Your task to perform on an android device: turn off translation in the chrome app Image 0: 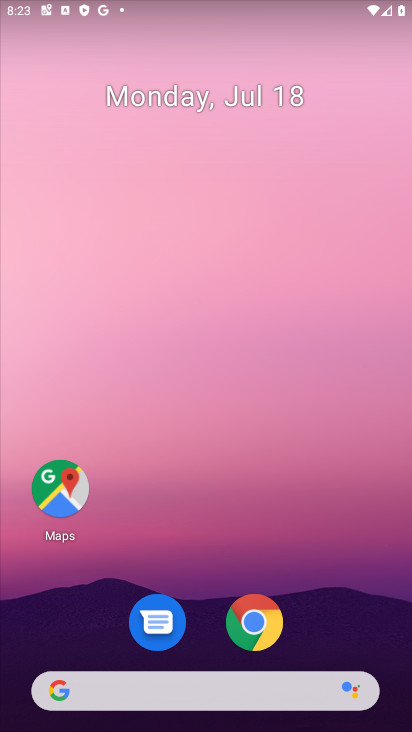
Step 0: drag from (188, 662) to (191, 281)
Your task to perform on an android device: turn off translation in the chrome app Image 1: 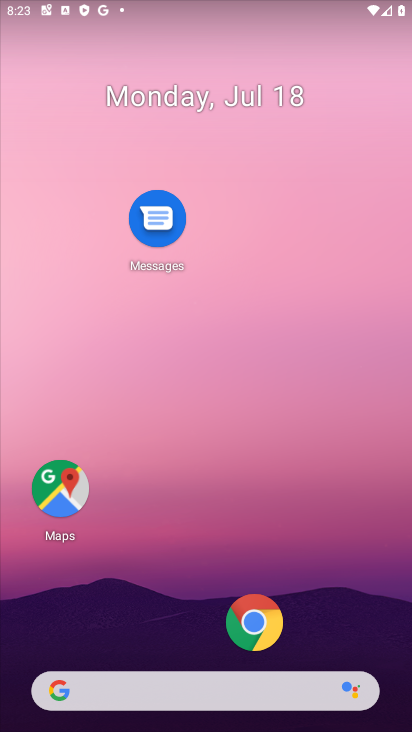
Step 1: drag from (332, 618) to (338, 260)
Your task to perform on an android device: turn off translation in the chrome app Image 2: 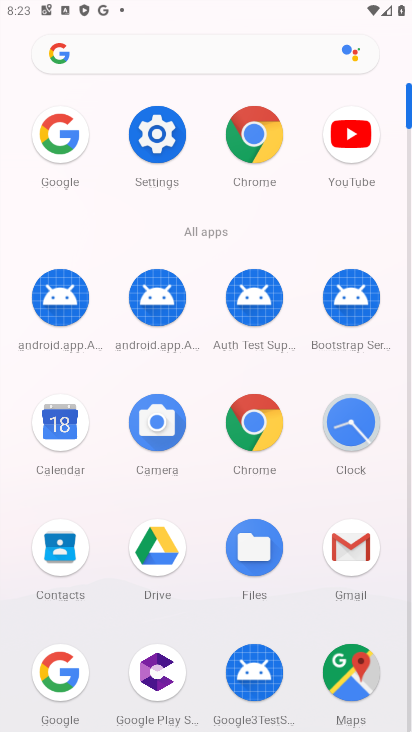
Step 2: click (264, 444)
Your task to perform on an android device: turn off translation in the chrome app Image 3: 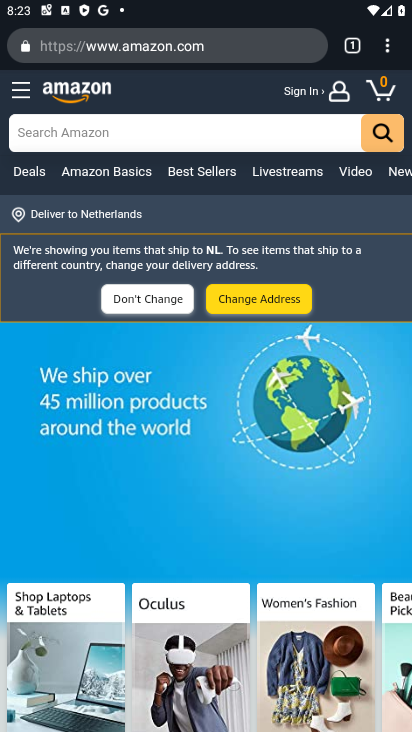
Step 3: click (390, 49)
Your task to perform on an android device: turn off translation in the chrome app Image 4: 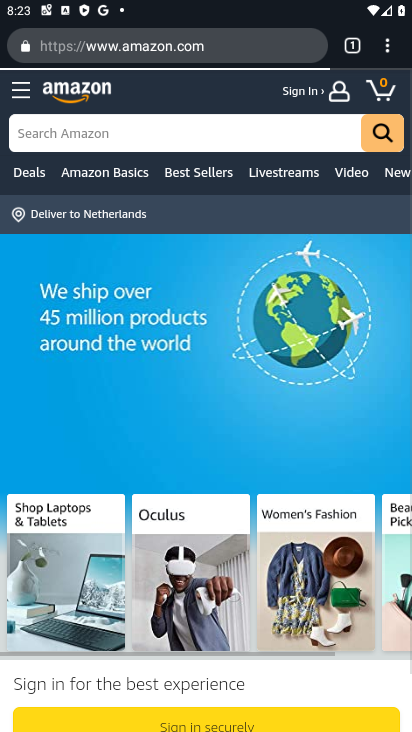
Step 4: click (389, 56)
Your task to perform on an android device: turn off translation in the chrome app Image 5: 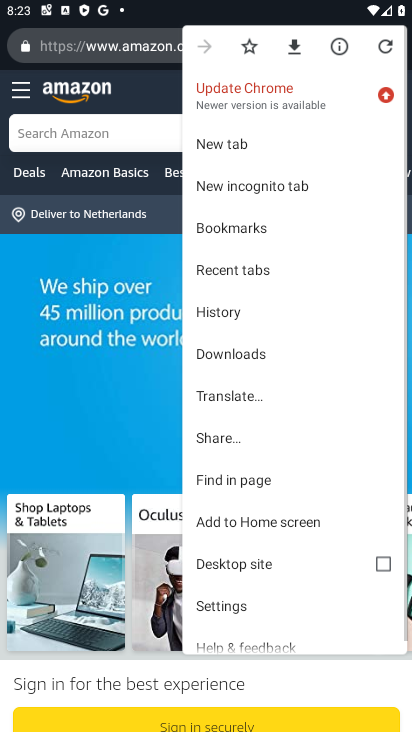
Step 5: click (262, 405)
Your task to perform on an android device: turn off translation in the chrome app Image 6: 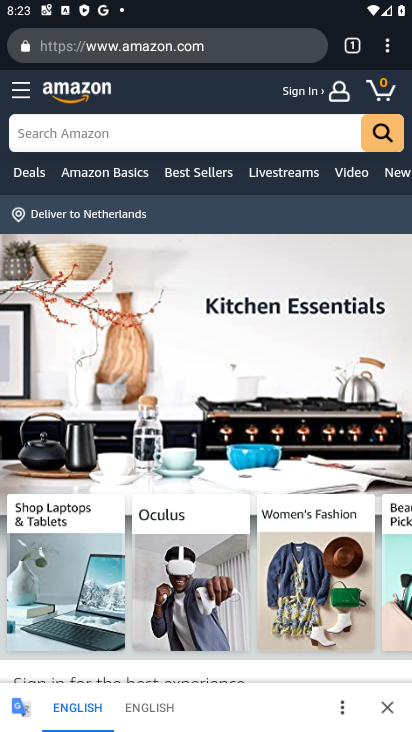
Step 6: click (340, 710)
Your task to perform on an android device: turn off translation in the chrome app Image 7: 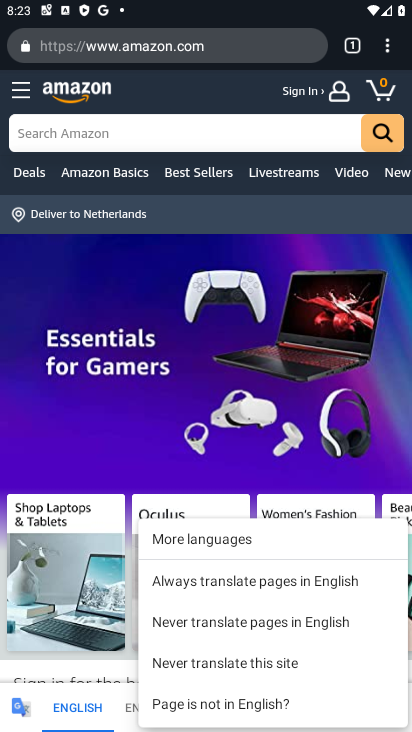
Step 7: click (278, 667)
Your task to perform on an android device: turn off translation in the chrome app Image 8: 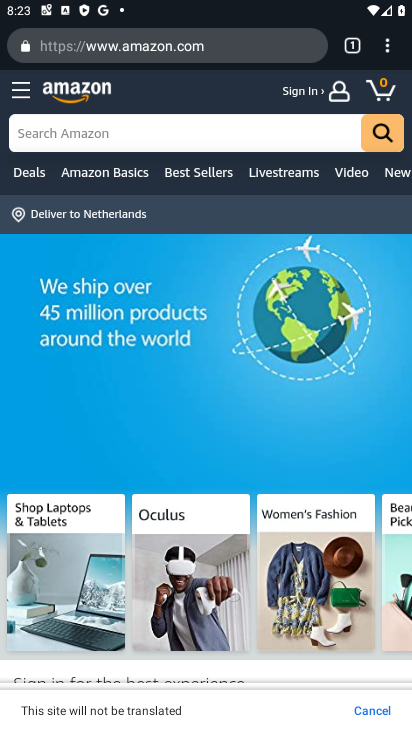
Step 8: task complete